Your task to perform on an android device: change notifications settings Image 0: 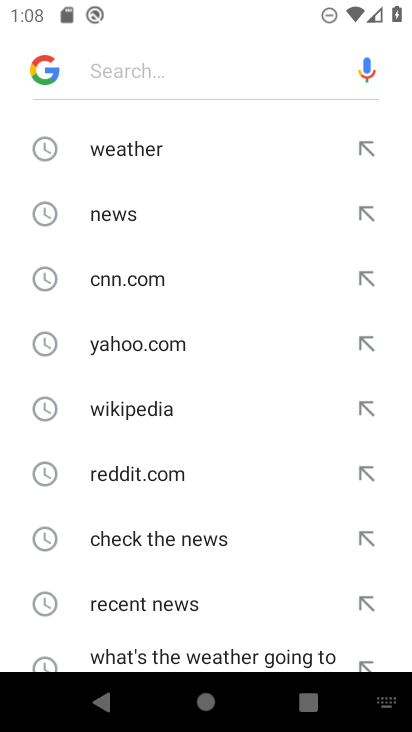
Step 0: press home button
Your task to perform on an android device: change notifications settings Image 1: 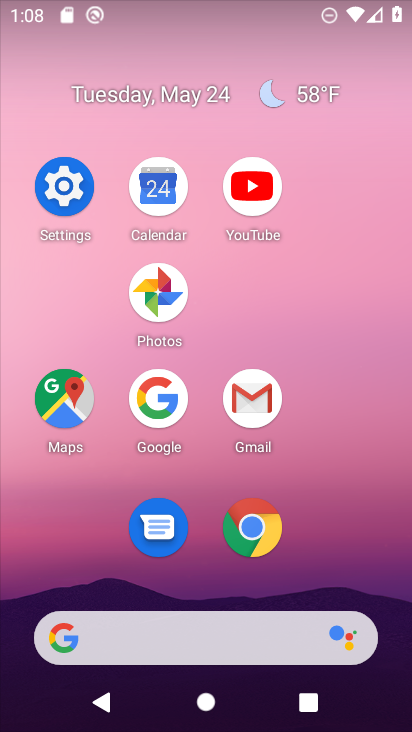
Step 1: click (68, 191)
Your task to perform on an android device: change notifications settings Image 2: 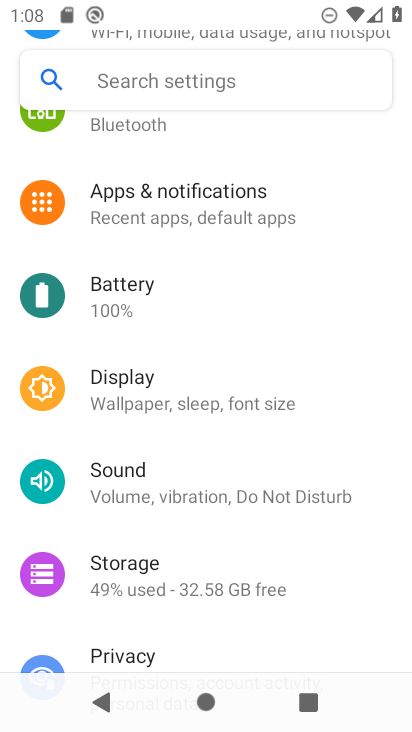
Step 2: click (189, 193)
Your task to perform on an android device: change notifications settings Image 3: 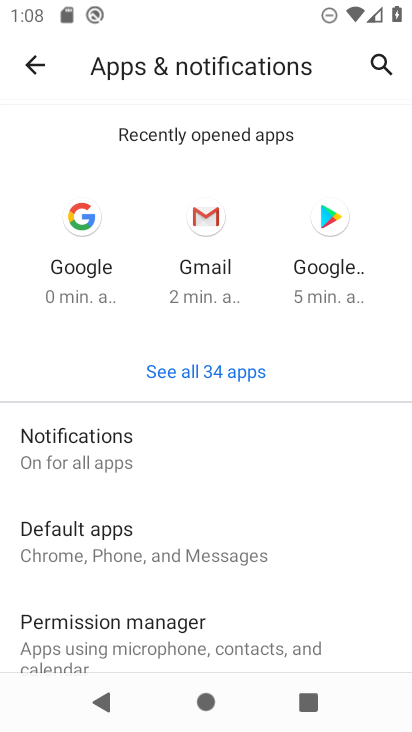
Step 3: task complete